Your task to perform on an android device: Clear the shopping cart on amazon.com. Search for usb-b on amazon.com, select the first entry, and add it to the cart. Image 0: 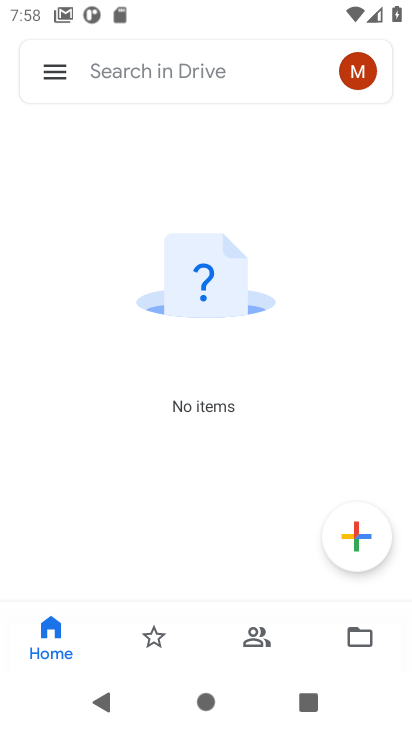
Step 0: press home button
Your task to perform on an android device: Clear the shopping cart on amazon.com. Search for usb-b on amazon.com, select the first entry, and add it to the cart. Image 1: 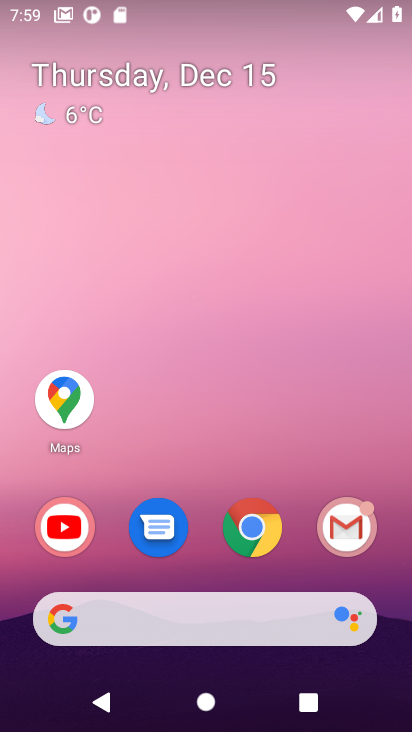
Step 1: click (256, 529)
Your task to perform on an android device: Clear the shopping cart on amazon.com. Search for usb-b on amazon.com, select the first entry, and add it to the cart. Image 2: 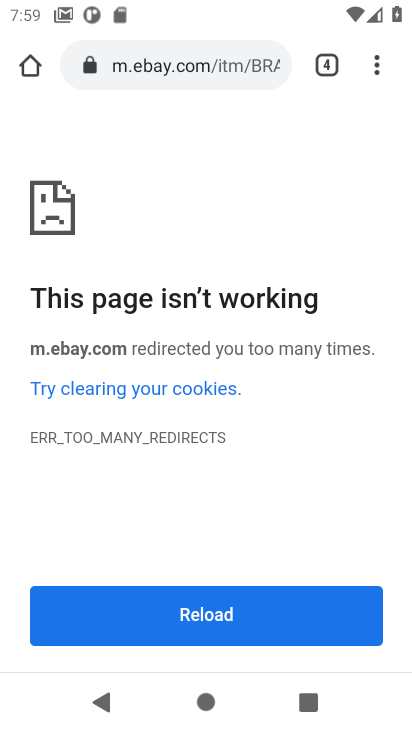
Step 2: click (182, 72)
Your task to perform on an android device: Clear the shopping cart on amazon.com. Search for usb-b on amazon.com, select the first entry, and add it to the cart. Image 3: 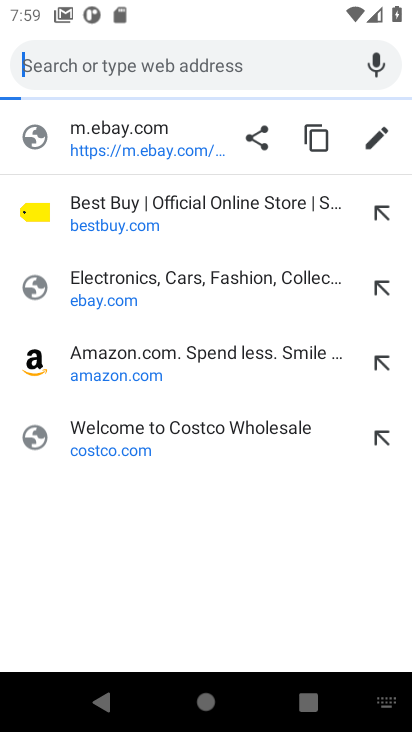
Step 3: click (237, 375)
Your task to perform on an android device: Clear the shopping cart on amazon.com. Search for usb-b on amazon.com, select the first entry, and add it to the cart. Image 4: 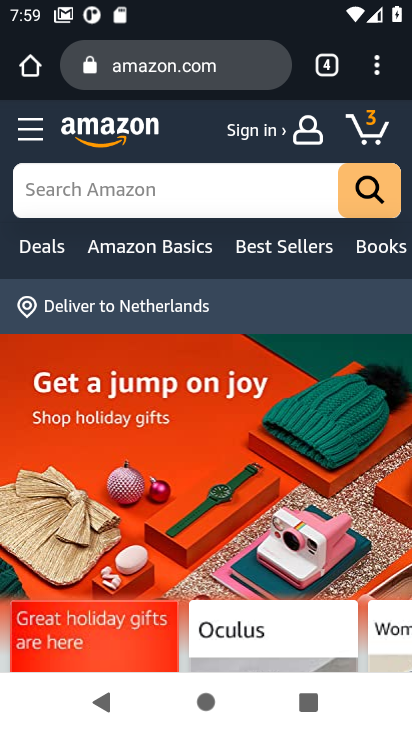
Step 4: click (164, 190)
Your task to perform on an android device: Clear the shopping cart on amazon.com. Search for usb-b on amazon.com, select the first entry, and add it to the cart. Image 5: 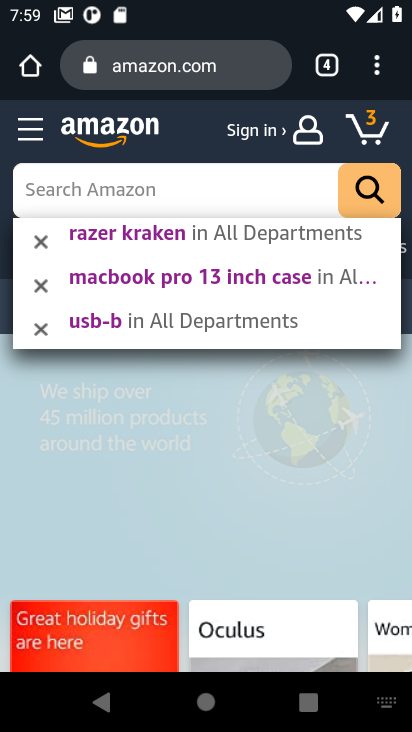
Step 5: type "usb-b"
Your task to perform on an android device: Clear the shopping cart on amazon.com. Search for usb-b on amazon.com, select the first entry, and add it to the cart. Image 6: 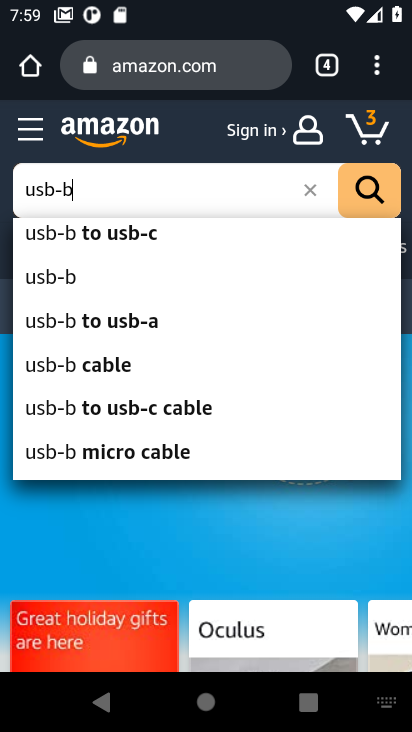
Step 6: click (377, 199)
Your task to perform on an android device: Clear the shopping cart on amazon.com. Search for usb-b on amazon.com, select the first entry, and add it to the cart. Image 7: 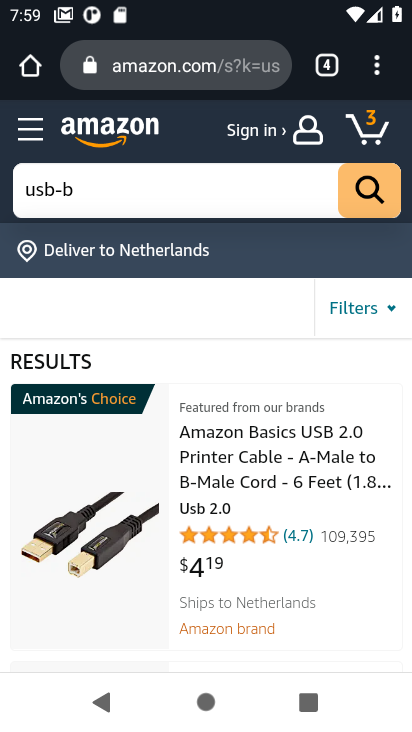
Step 7: click (220, 482)
Your task to perform on an android device: Clear the shopping cart on amazon.com. Search for usb-b on amazon.com, select the first entry, and add it to the cart. Image 8: 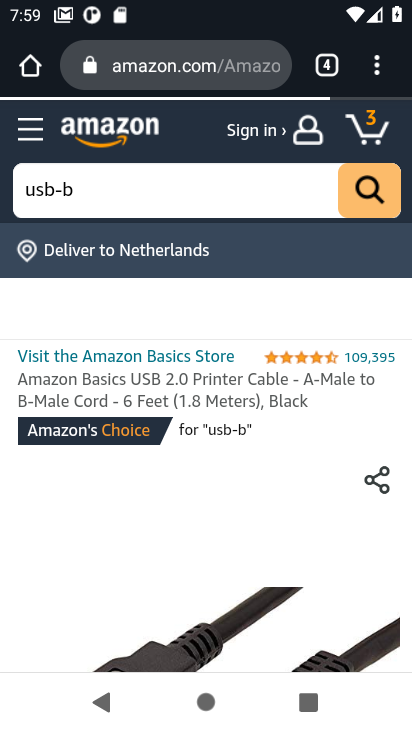
Step 8: drag from (105, 597) to (127, 254)
Your task to perform on an android device: Clear the shopping cart on amazon.com. Search for usb-b on amazon.com, select the first entry, and add it to the cart. Image 9: 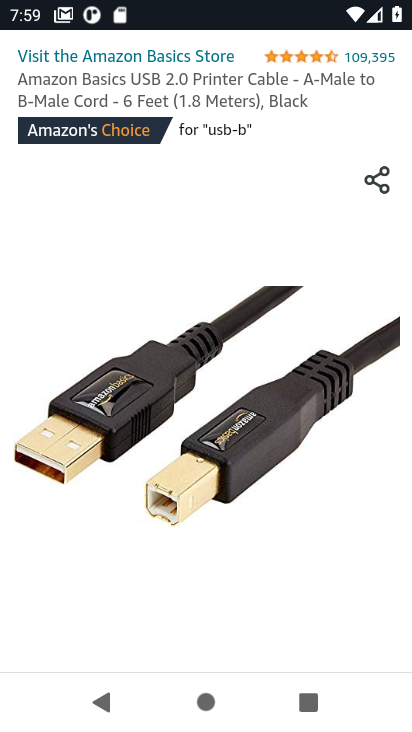
Step 9: drag from (213, 533) to (247, 233)
Your task to perform on an android device: Clear the shopping cart on amazon.com. Search for usb-b on amazon.com, select the first entry, and add it to the cart. Image 10: 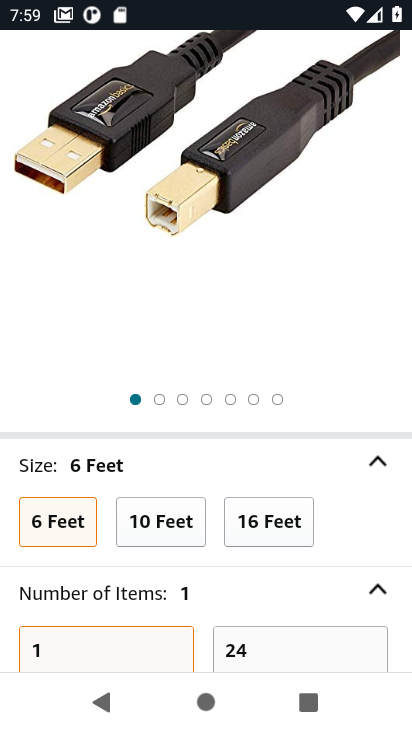
Step 10: drag from (248, 579) to (257, 162)
Your task to perform on an android device: Clear the shopping cart on amazon.com. Search for usb-b on amazon.com, select the first entry, and add it to the cart. Image 11: 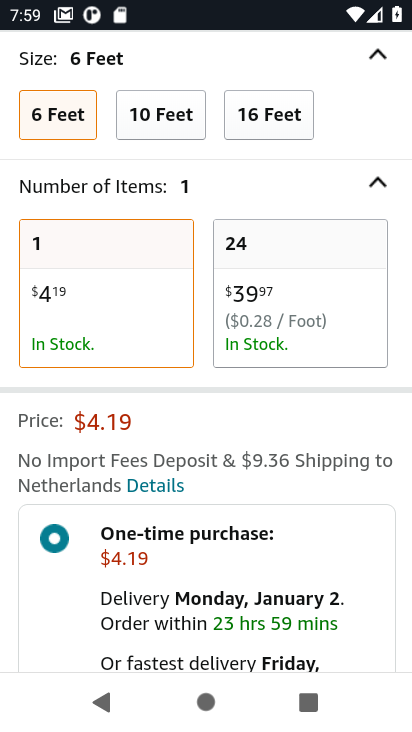
Step 11: drag from (234, 556) to (288, 36)
Your task to perform on an android device: Clear the shopping cart on amazon.com. Search for usb-b on amazon.com, select the first entry, and add it to the cart. Image 12: 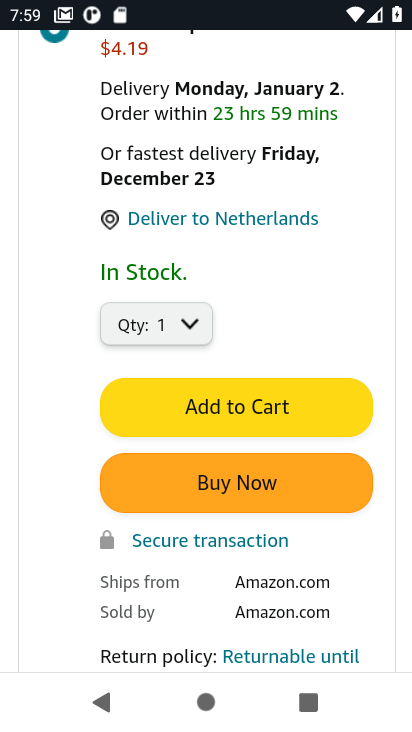
Step 12: click (299, 427)
Your task to perform on an android device: Clear the shopping cart on amazon.com. Search for usb-b on amazon.com, select the first entry, and add it to the cart. Image 13: 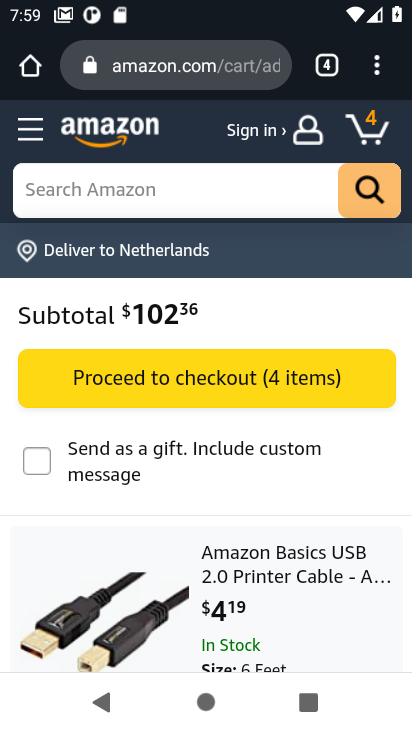
Step 13: task complete